Your task to perform on an android device: see tabs open on other devices in the chrome app Image 0: 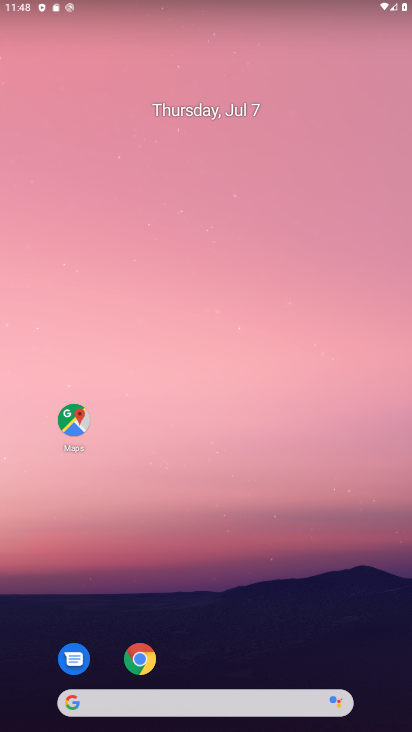
Step 0: press home button
Your task to perform on an android device: see tabs open on other devices in the chrome app Image 1: 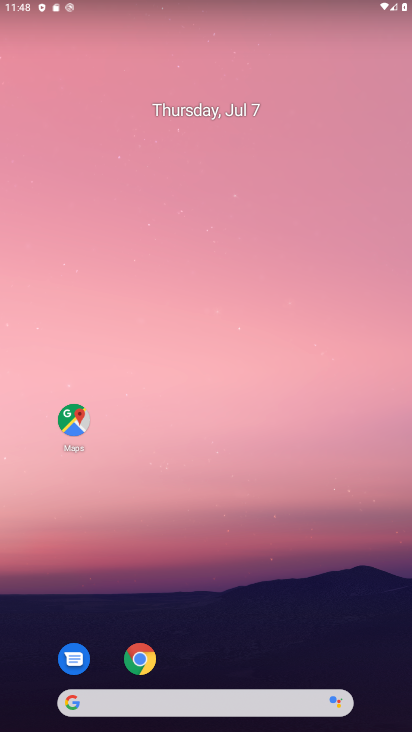
Step 1: drag from (252, 596) to (144, 137)
Your task to perform on an android device: see tabs open on other devices in the chrome app Image 2: 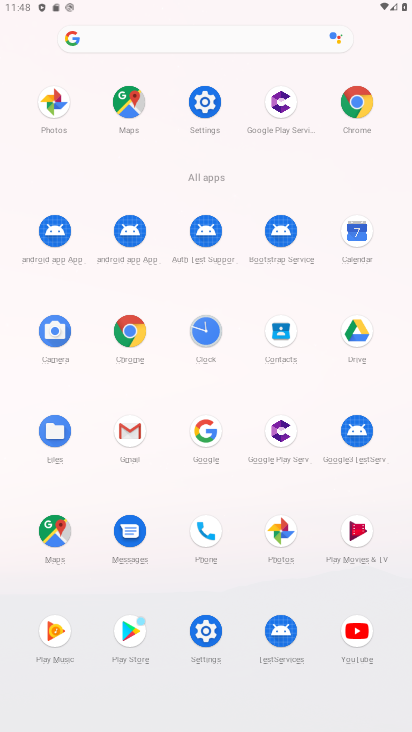
Step 2: click (362, 101)
Your task to perform on an android device: see tabs open on other devices in the chrome app Image 3: 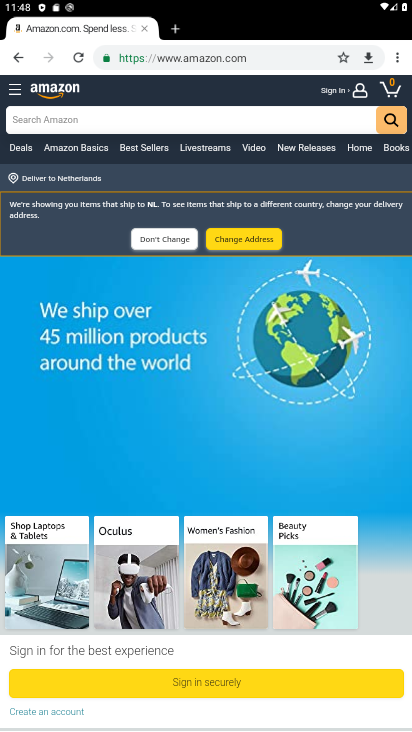
Step 3: click (394, 54)
Your task to perform on an android device: see tabs open on other devices in the chrome app Image 4: 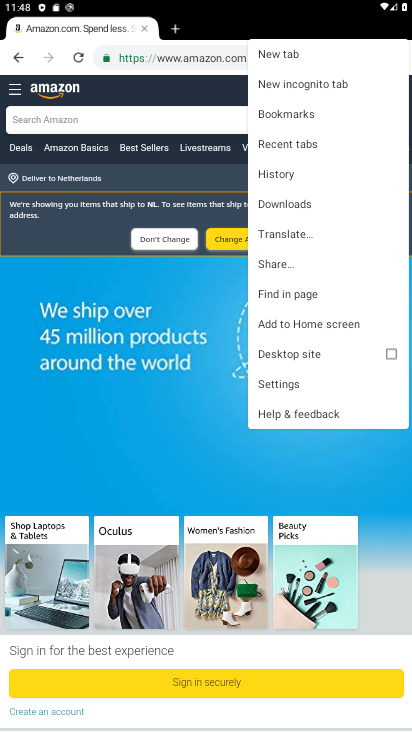
Step 4: click (285, 141)
Your task to perform on an android device: see tabs open on other devices in the chrome app Image 5: 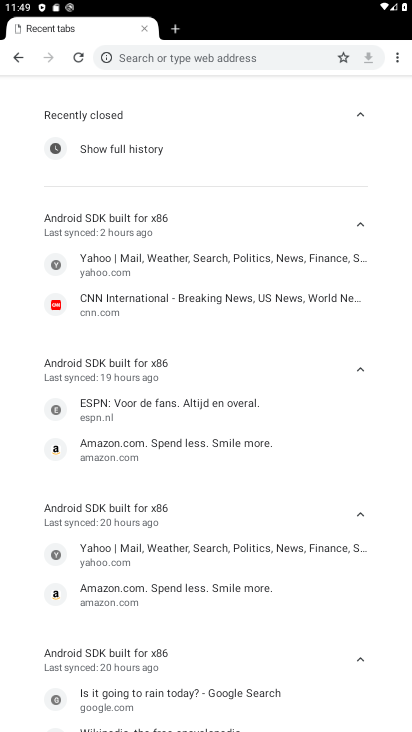
Step 5: task complete